Your task to perform on an android device: stop showing notifications on the lock screen Image 0: 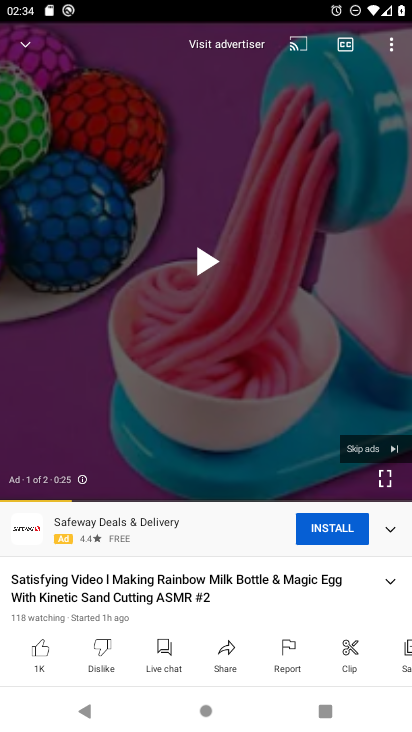
Step 0: press home button
Your task to perform on an android device: stop showing notifications on the lock screen Image 1: 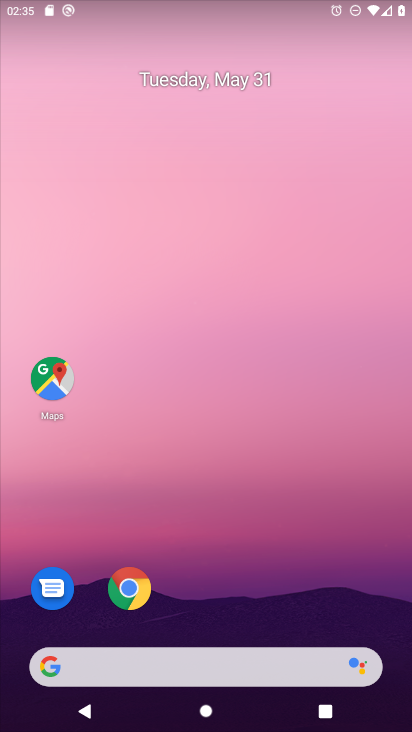
Step 1: drag from (264, 658) to (170, 29)
Your task to perform on an android device: stop showing notifications on the lock screen Image 2: 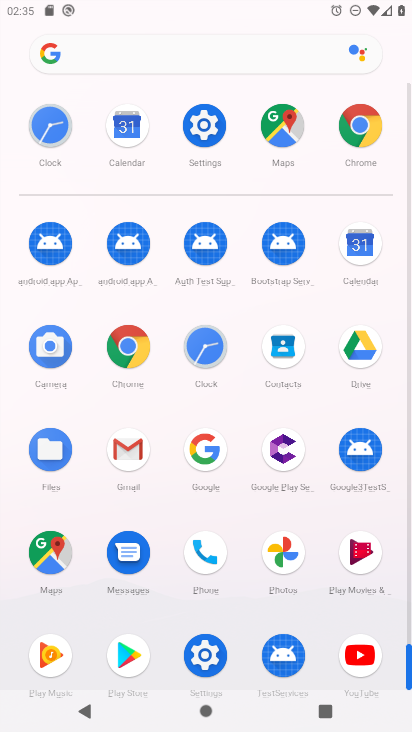
Step 2: click (209, 139)
Your task to perform on an android device: stop showing notifications on the lock screen Image 3: 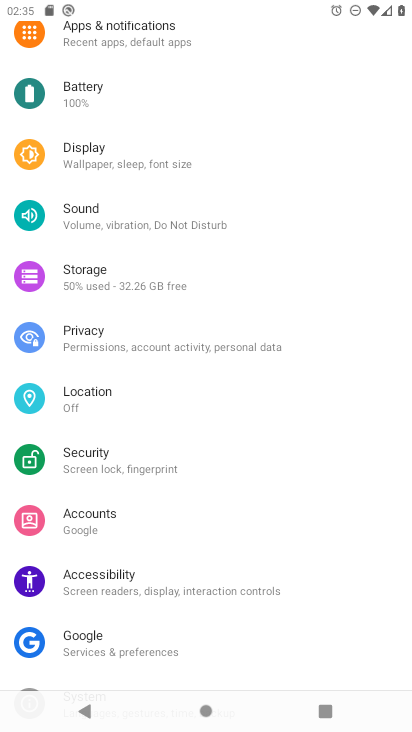
Step 3: drag from (148, 333) to (206, 654)
Your task to perform on an android device: stop showing notifications on the lock screen Image 4: 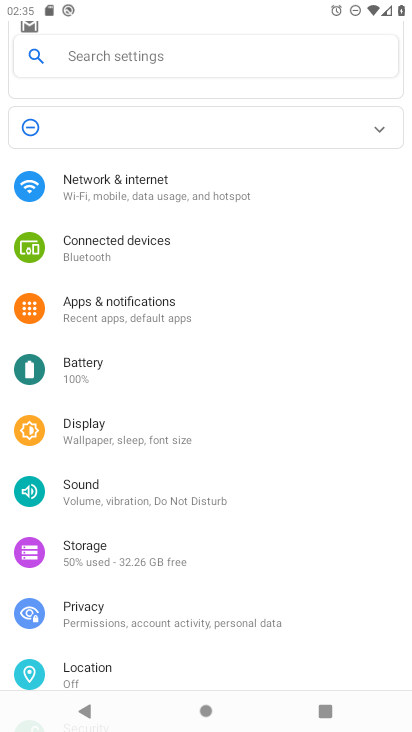
Step 4: click (180, 303)
Your task to perform on an android device: stop showing notifications on the lock screen Image 5: 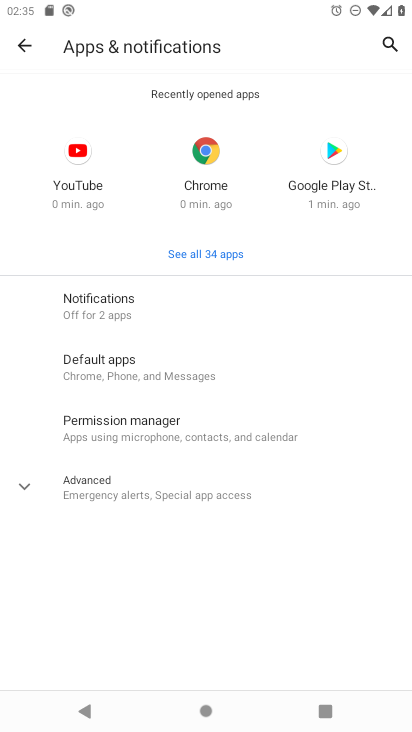
Step 5: click (166, 305)
Your task to perform on an android device: stop showing notifications on the lock screen Image 6: 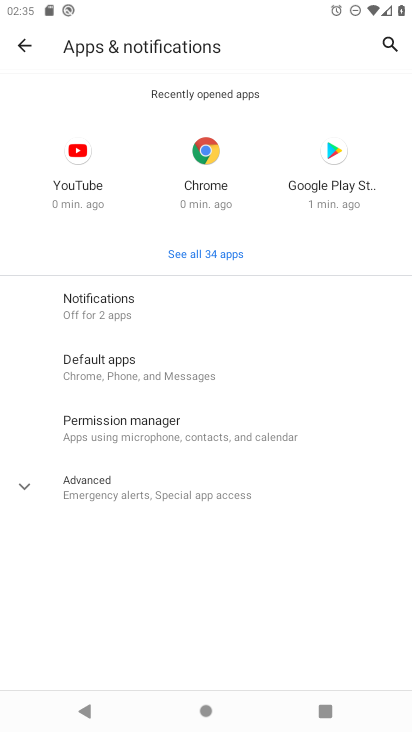
Step 6: click (169, 314)
Your task to perform on an android device: stop showing notifications on the lock screen Image 7: 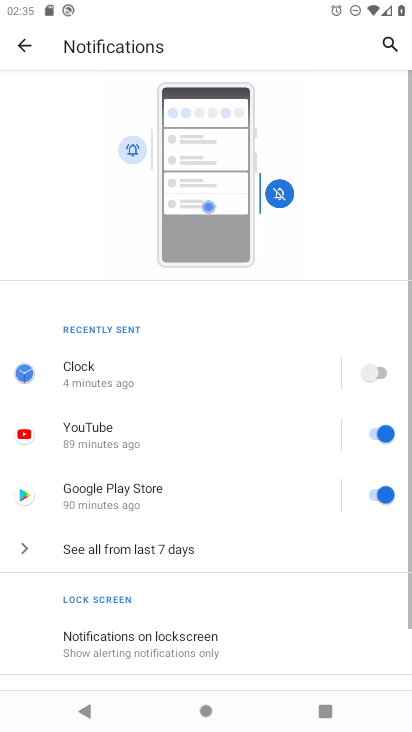
Step 7: drag from (228, 622) to (266, 151)
Your task to perform on an android device: stop showing notifications on the lock screen Image 8: 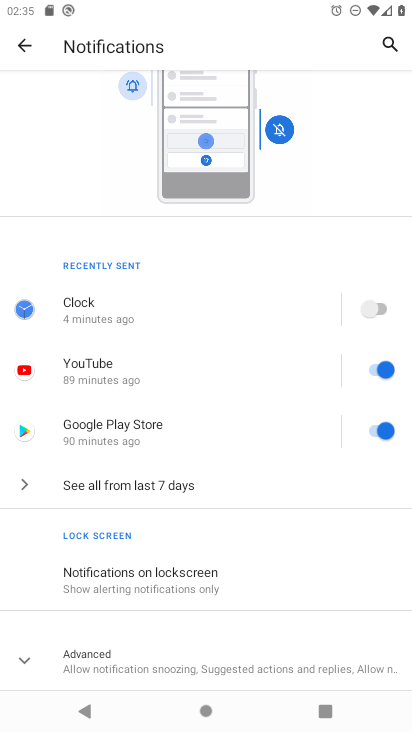
Step 8: click (167, 592)
Your task to perform on an android device: stop showing notifications on the lock screen Image 9: 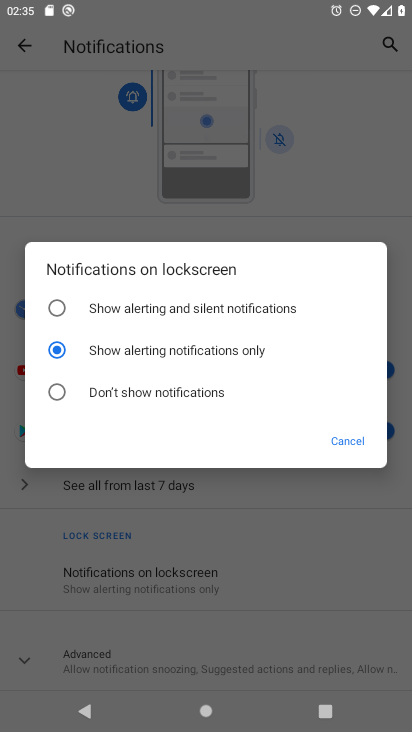
Step 9: click (56, 390)
Your task to perform on an android device: stop showing notifications on the lock screen Image 10: 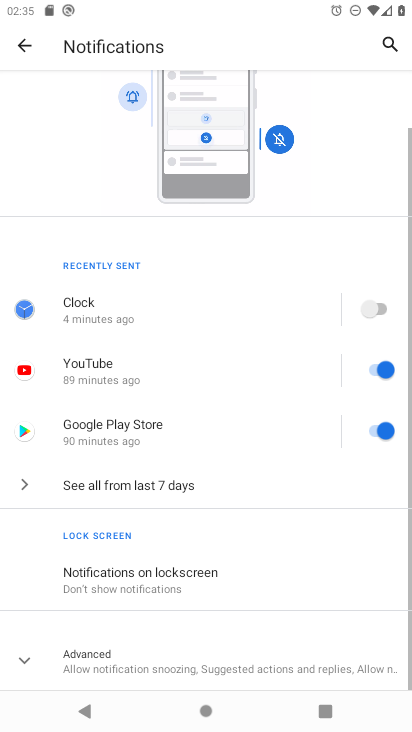
Step 10: task complete